Your task to perform on an android device: Is it going to rain tomorrow? Image 0: 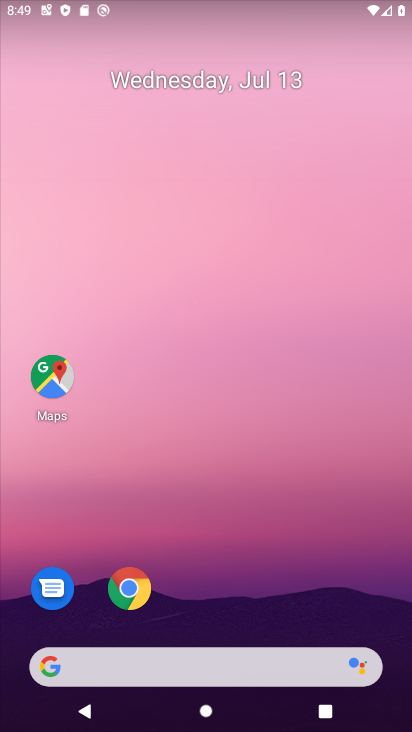
Step 0: drag from (235, 619) to (237, 343)
Your task to perform on an android device: Is it going to rain tomorrow? Image 1: 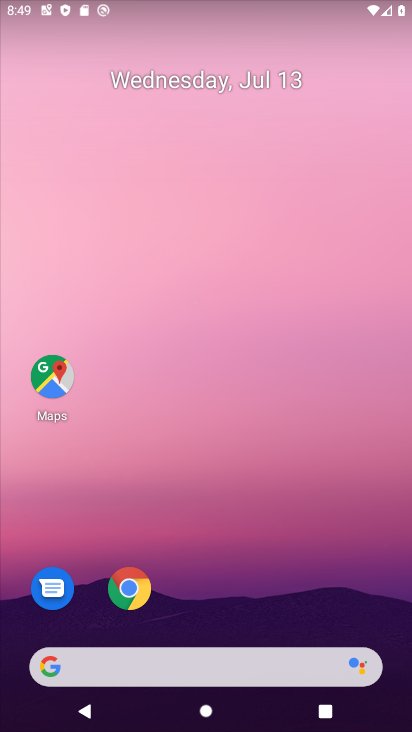
Step 1: drag from (246, 621) to (246, 266)
Your task to perform on an android device: Is it going to rain tomorrow? Image 2: 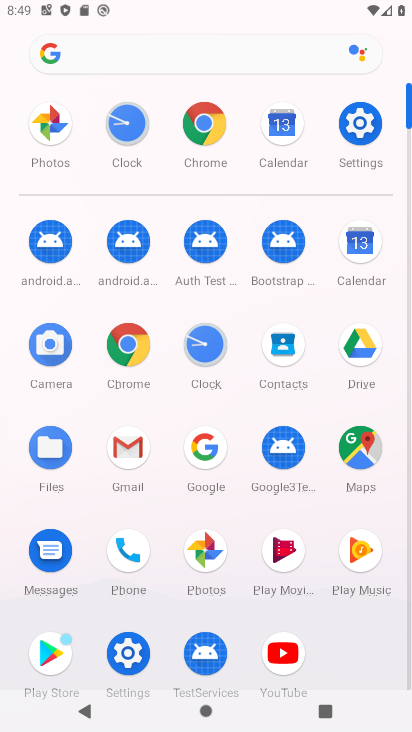
Step 2: click (289, 120)
Your task to perform on an android device: Is it going to rain tomorrow? Image 3: 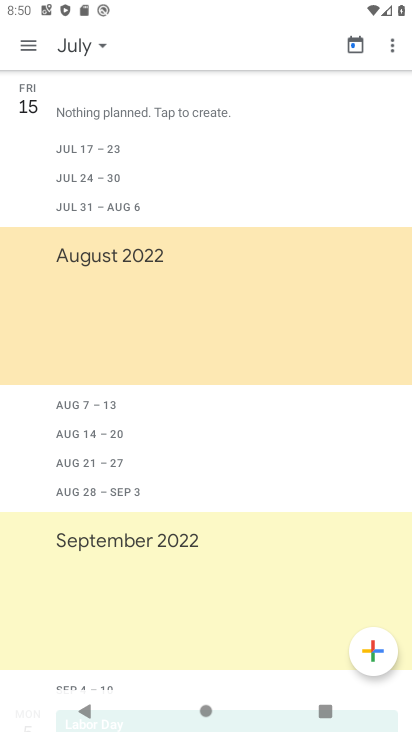
Step 3: click (31, 42)
Your task to perform on an android device: Is it going to rain tomorrow? Image 4: 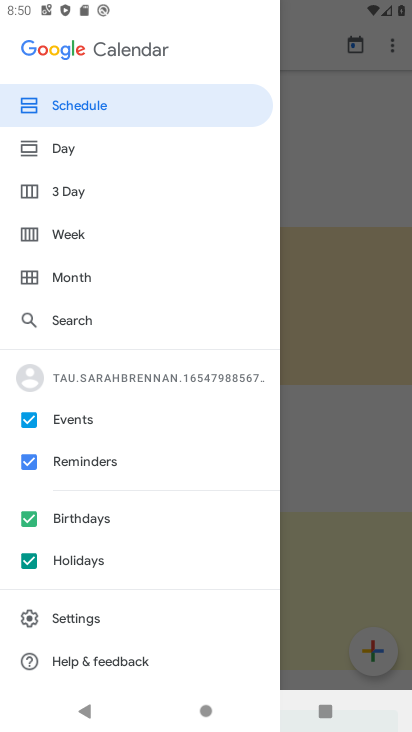
Step 4: click (73, 287)
Your task to perform on an android device: Is it going to rain tomorrow? Image 5: 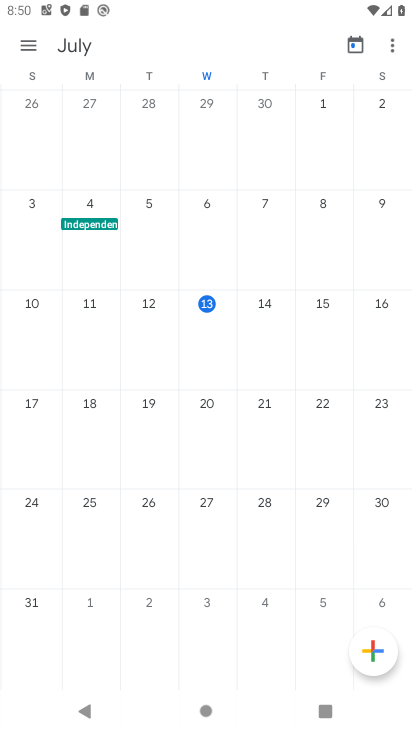
Step 5: click (309, 315)
Your task to perform on an android device: Is it going to rain tomorrow? Image 6: 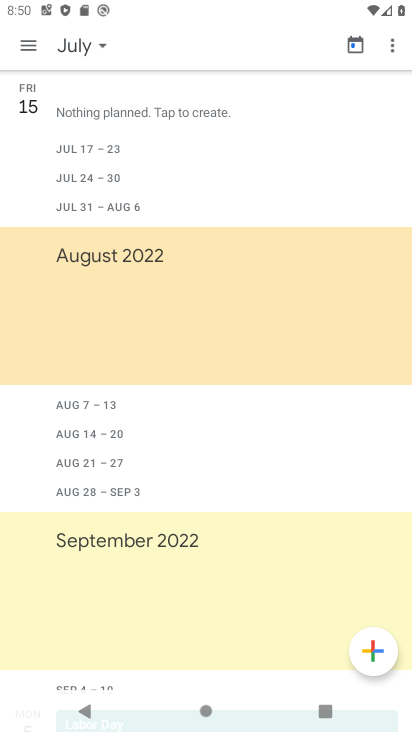
Step 6: task complete